Your task to perform on an android device: set an alarm Image 0: 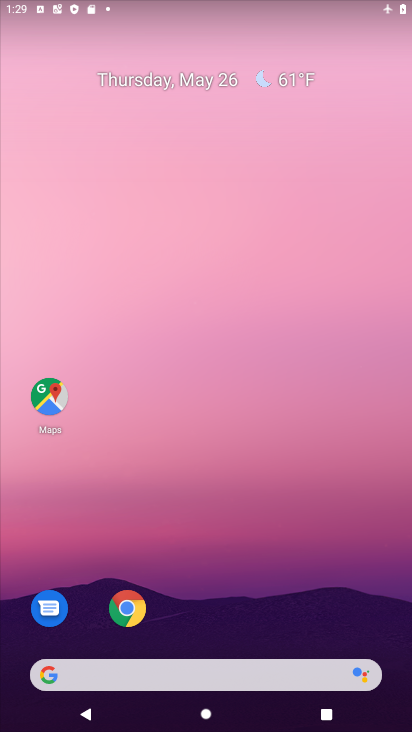
Step 0: drag from (393, 643) to (263, 4)
Your task to perform on an android device: set an alarm Image 1: 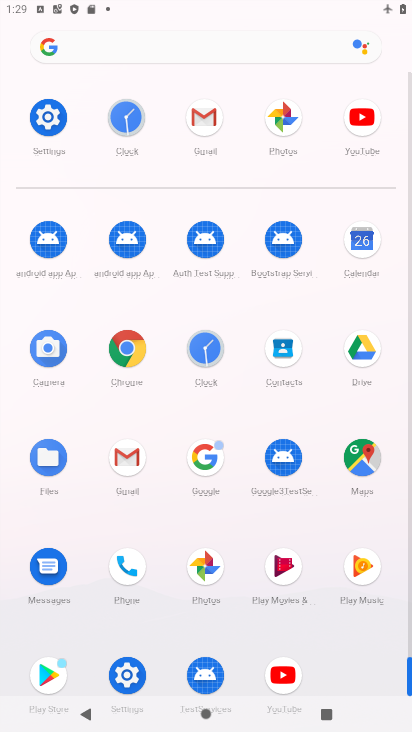
Step 1: click (202, 347)
Your task to perform on an android device: set an alarm Image 2: 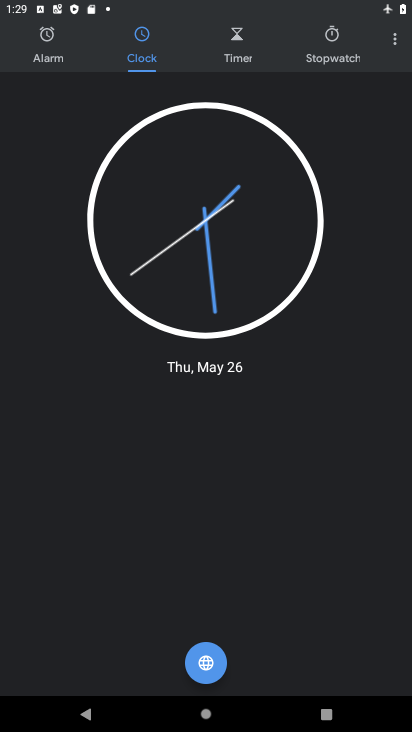
Step 2: click (46, 35)
Your task to perform on an android device: set an alarm Image 3: 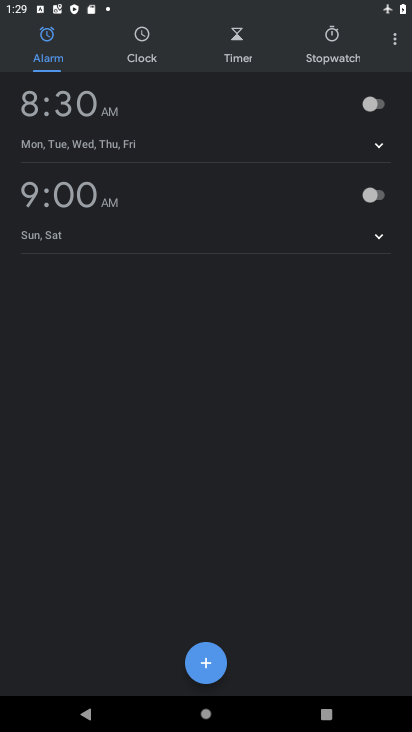
Step 3: click (62, 182)
Your task to perform on an android device: set an alarm Image 4: 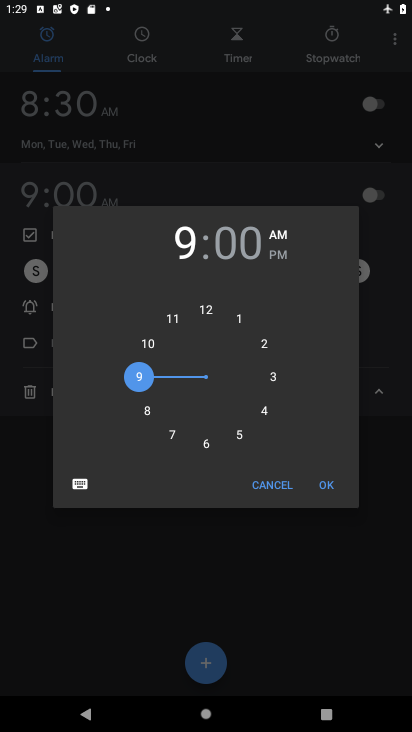
Step 4: click (207, 448)
Your task to perform on an android device: set an alarm Image 5: 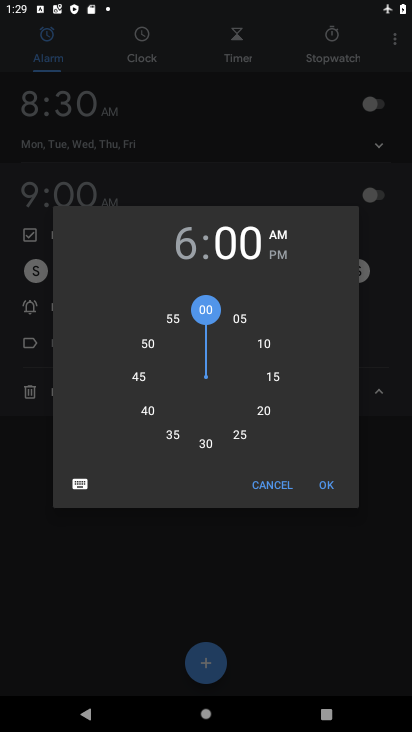
Step 5: click (269, 375)
Your task to perform on an android device: set an alarm Image 6: 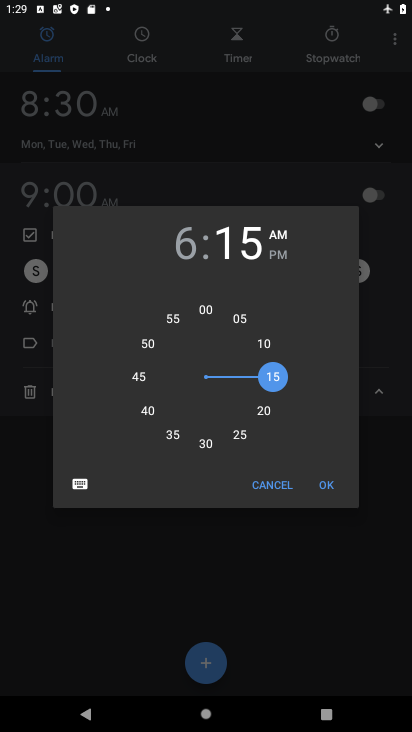
Step 6: click (322, 490)
Your task to perform on an android device: set an alarm Image 7: 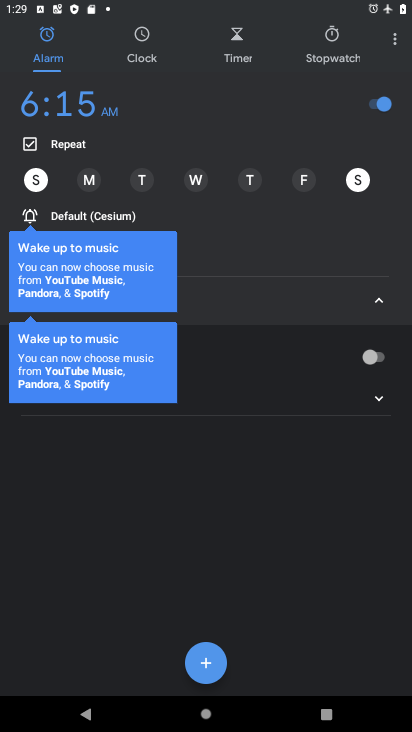
Step 7: click (86, 183)
Your task to perform on an android device: set an alarm Image 8: 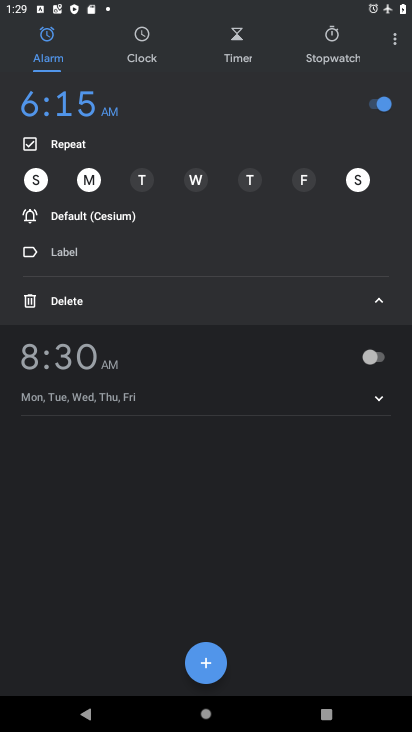
Step 8: click (139, 171)
Your task to perform on an android device: set an alarm Image 9: 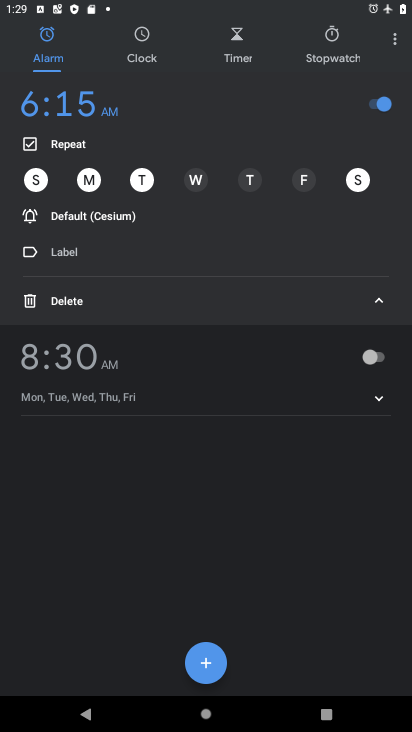
Step 9: click (190, 182)
Your task to perform on an android device: set an alarm Image 10: 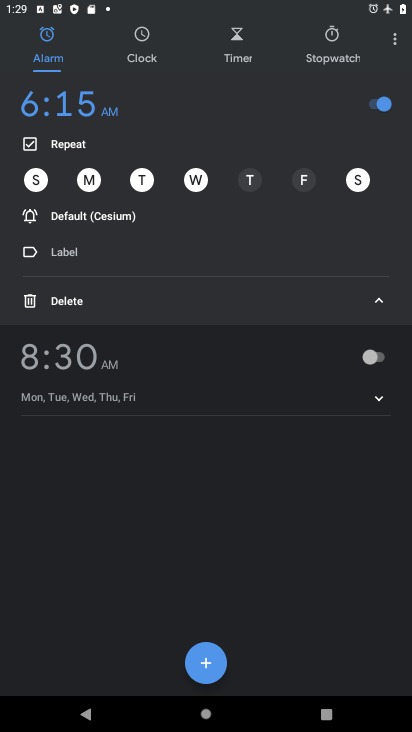
Step 10: click (241, 184)
Your task to perform on an android device: set an alarm Image 11: 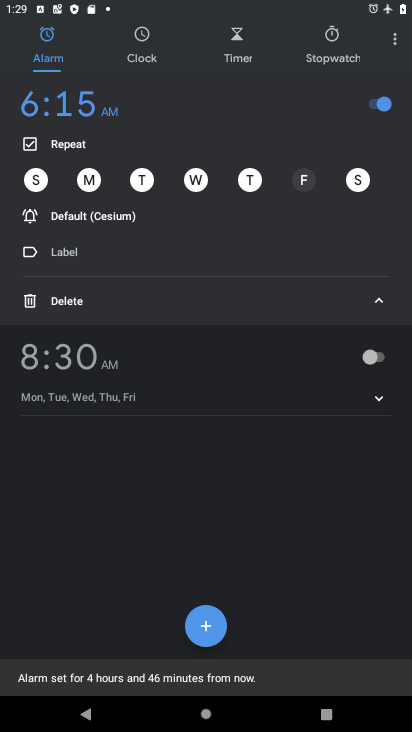
Step 11: click (306, 186)
Your task to perform on an android device: set an alarm Image 12: 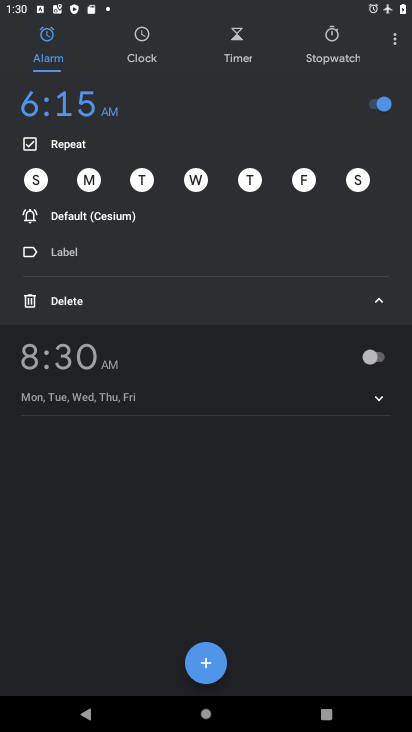
Step 12: click (33, 175)
Your task to perform on an android device: set an alarm Image 13: 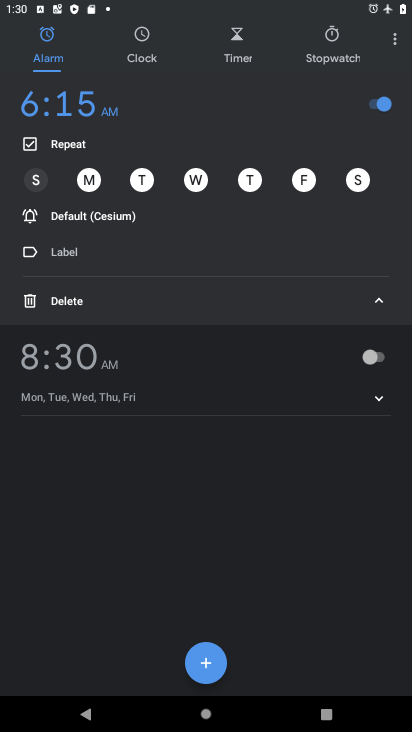
Step 13: click (386, 302)
Your task to perform on an android device: set an alarm Image 14: 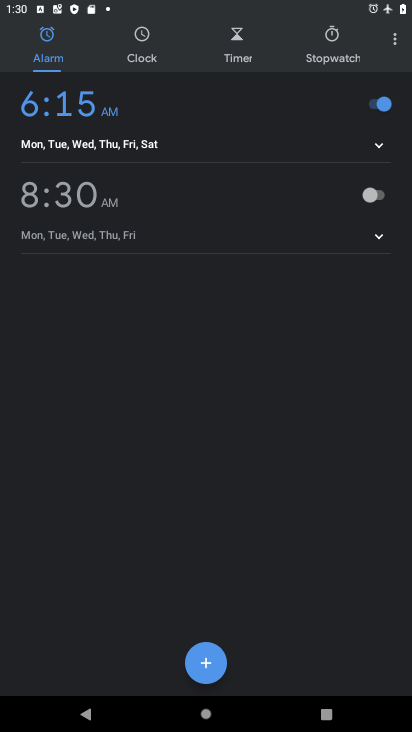
Step 14: task complete